Your task to perform on an android device: Search for hotels in Las Vegas Image 0: 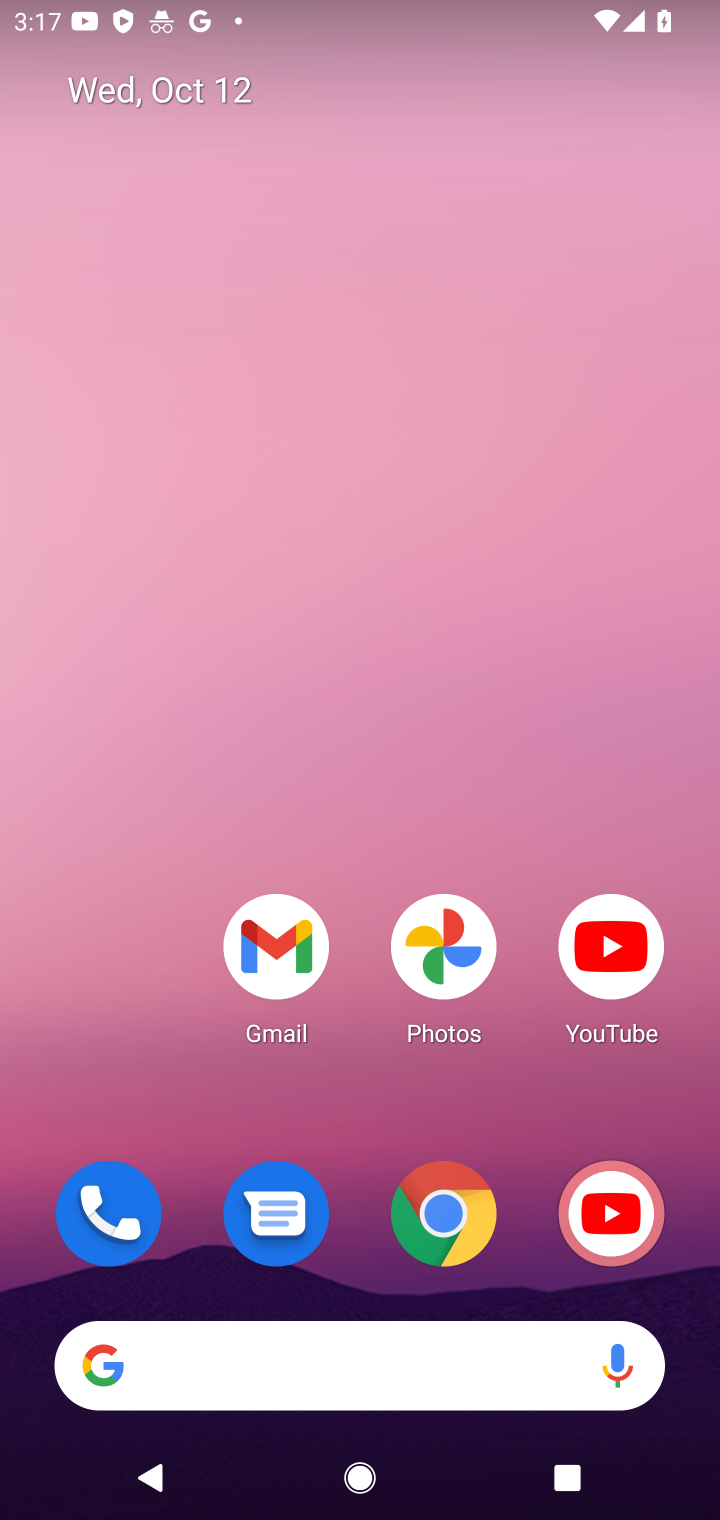
Step 0: click (285, 1353)
Your task to perform on an android device: Search for hotels in Las Vegas Image 1: 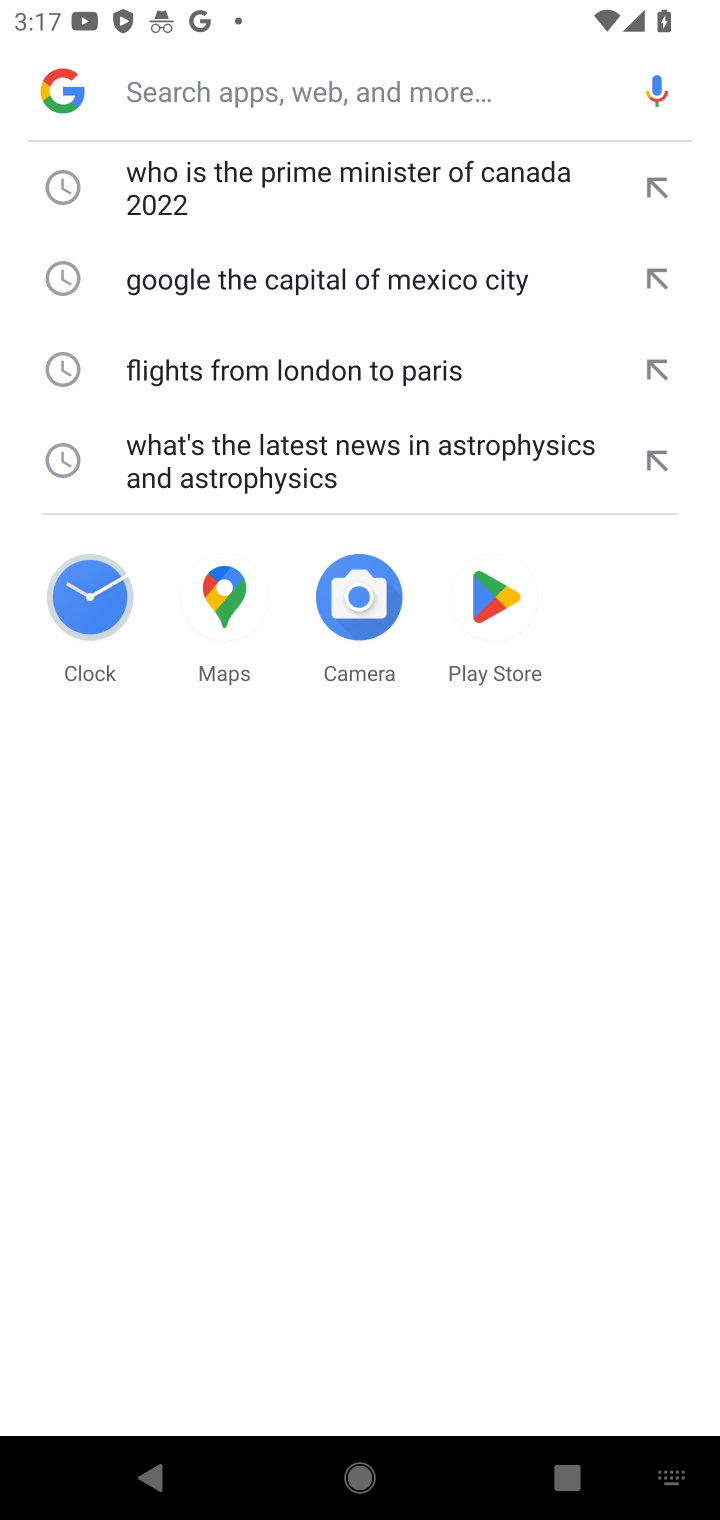
Step 1: click (192, 96)
Your task to perform on an android device: Search for hotels in Las Vegas Image 2: 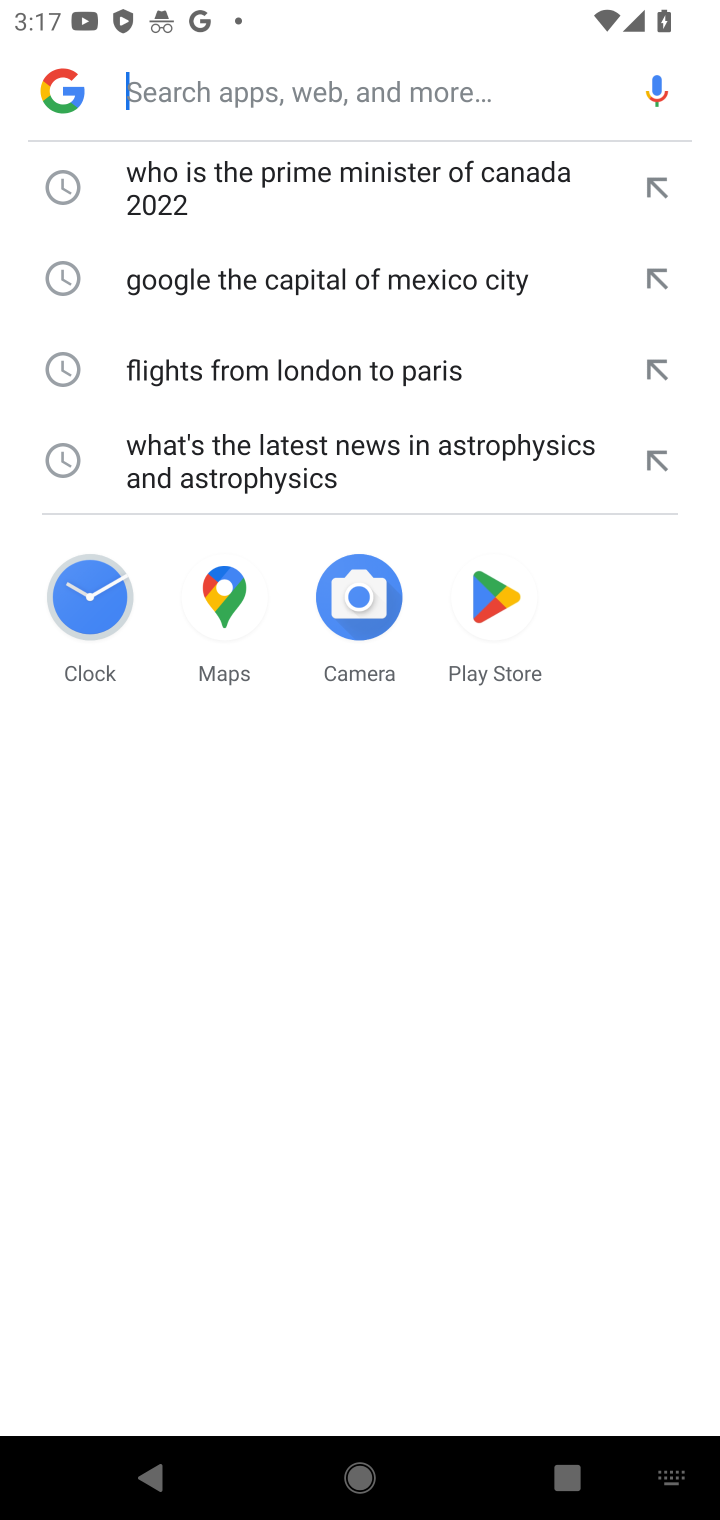
Step 2: type "hotels in Las Vegas"
Your task to perform on an android device: Search for hotels in Las Vegas Image 3: 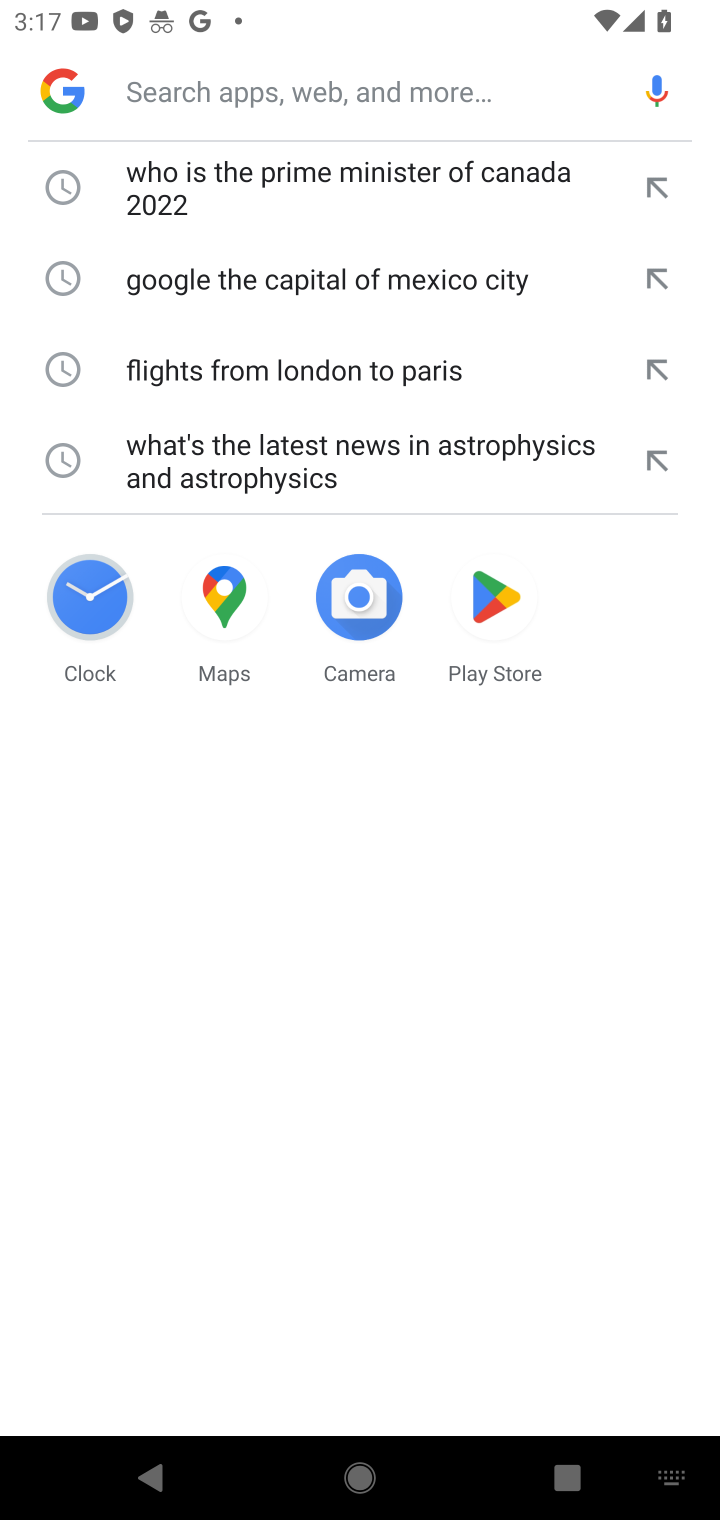
Step 3: click (284, 1060)
Your task to perform on an android device: Search for hotels in Las Vegas Image 4: 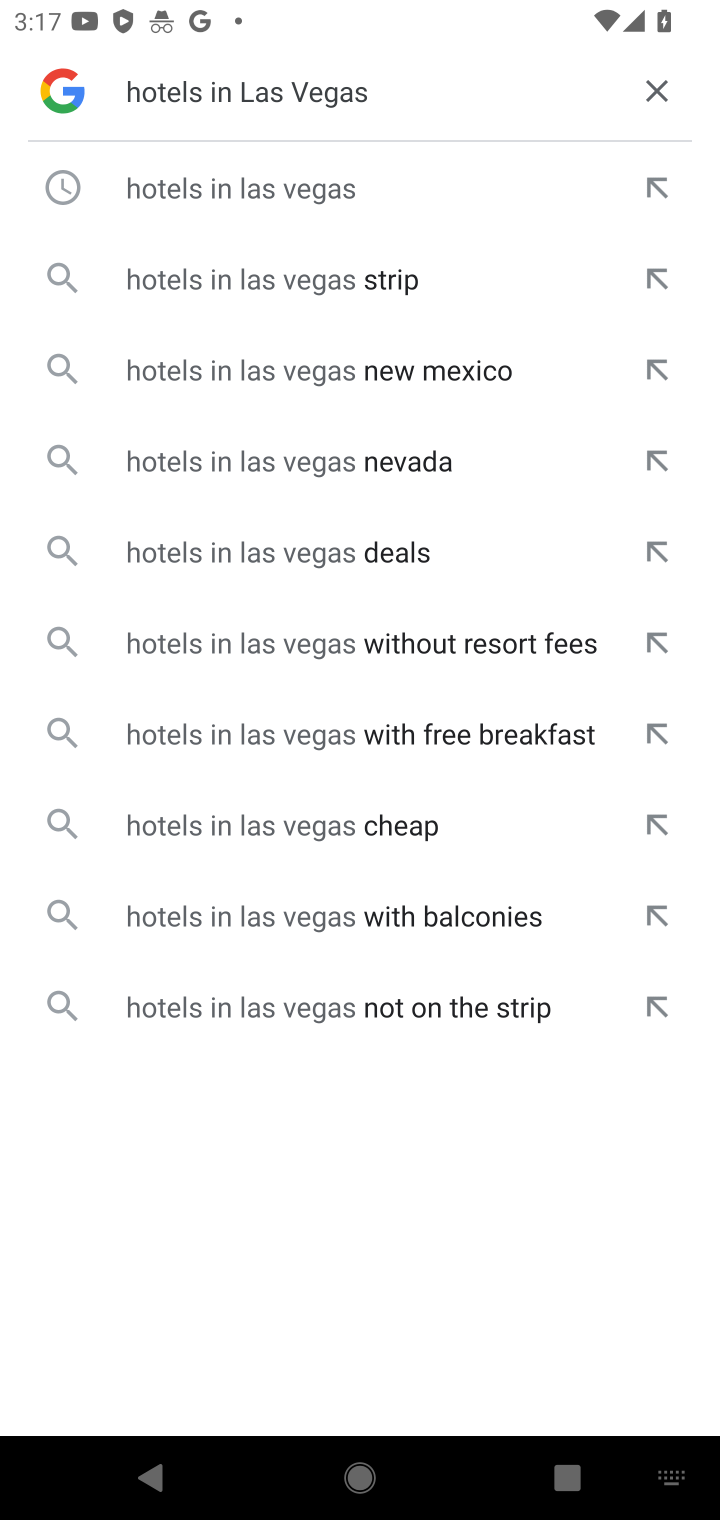
Step 4: click (269, 178)
Your task to perform on an android device: Search for hotels in Las Vegas Image 5: 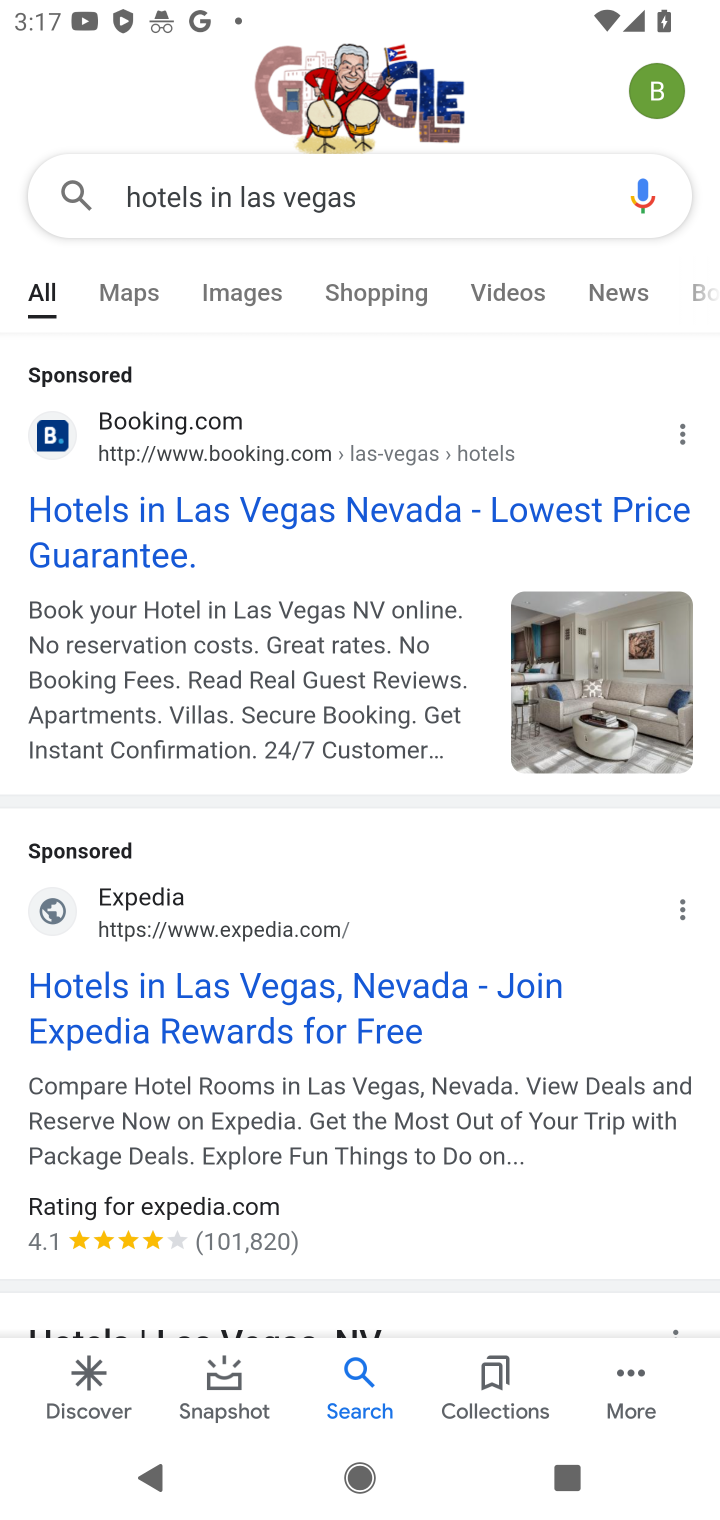
Step 5: task complete